Your task to perform on an android device: move a message to another label in the gmail app Image 0: 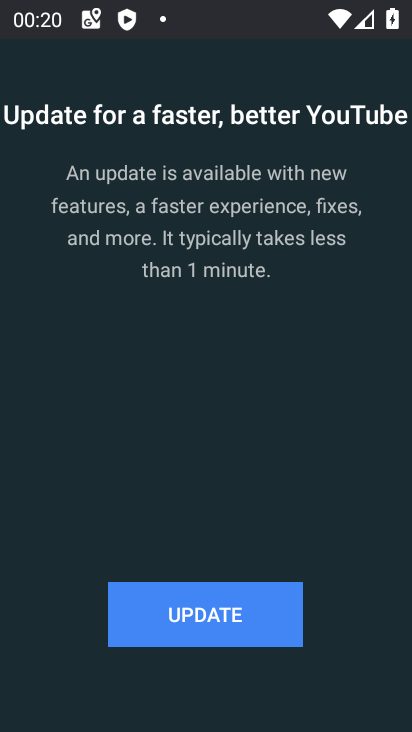
Step 0: press home button
Your task to perform on an android device: move a message to another label in the gmail app Image 1: 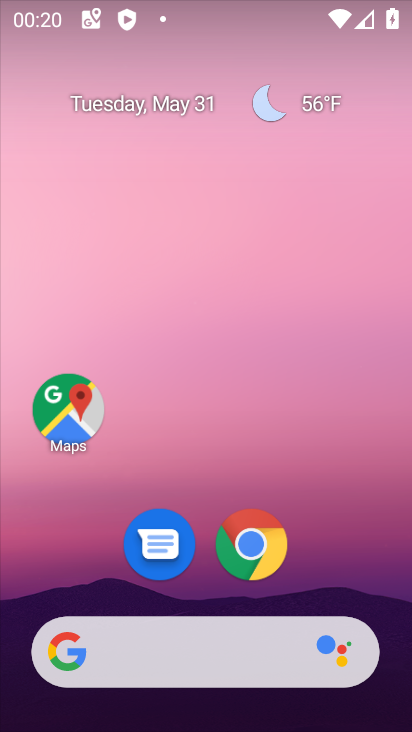
Step 1: drag from (338, 537) to (183, 7)
Your task to perform on an android device: move a message to another label in the gmail app Image 2: 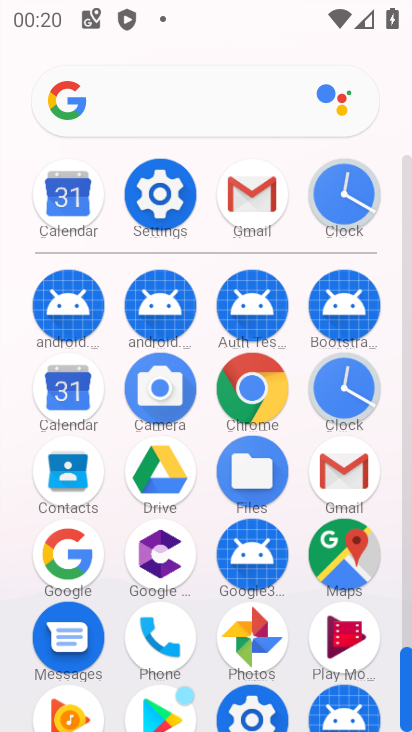
Step 2: click (245, 200)
Your task to perform on an android device: move a message to another label in the gmail app Image 3: 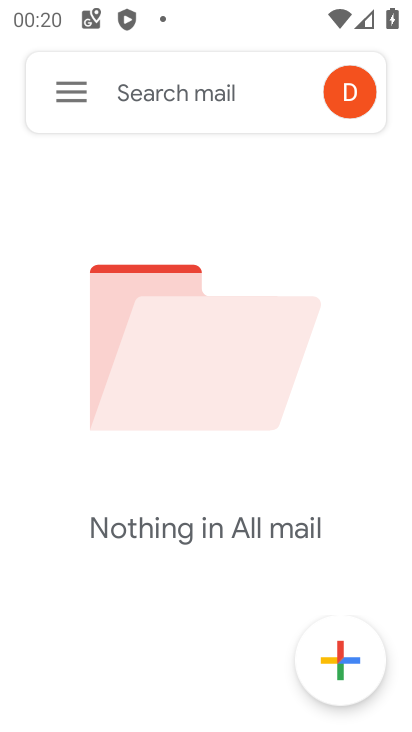
Step 3: click (69, 100)
Your task to perform on an android device: move a message to another label in the gmail app Image 4: 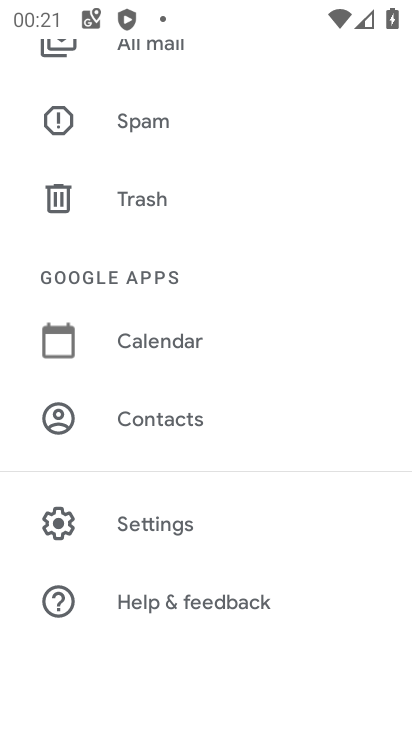
Step 4: click (149, 52)
Your task to perform on an android device: move a message to another label in the gmail app Image 5: 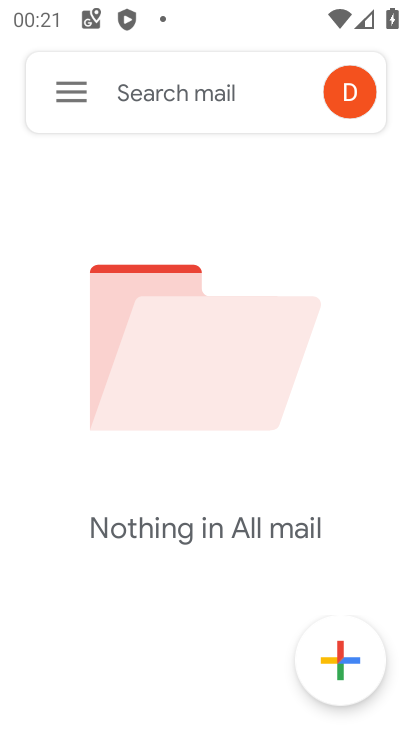
Step 5: task complete